Your task to perform on an android device: Open wifi settings Image 0: 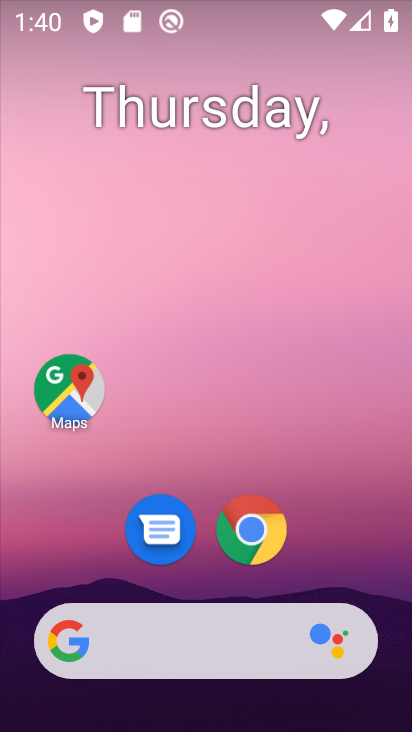
Step 0: drag from (230, 696) to (231, 61)
Your task to perform on an android device: Open wifi settings Image 1: 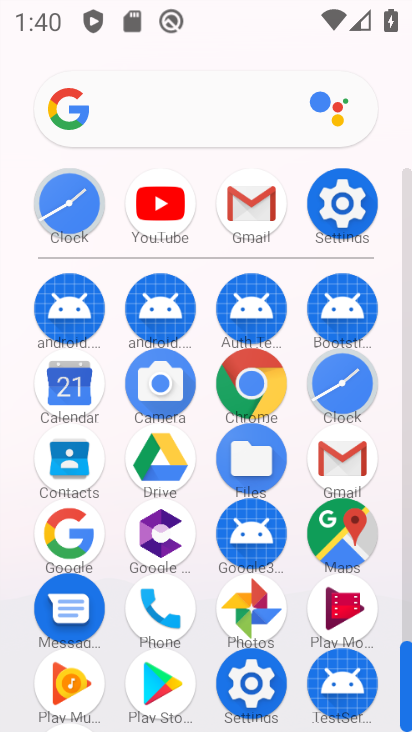
Step 1: click (349, 207)
Your task to perform on an android device: Open wifi settings Image 2: 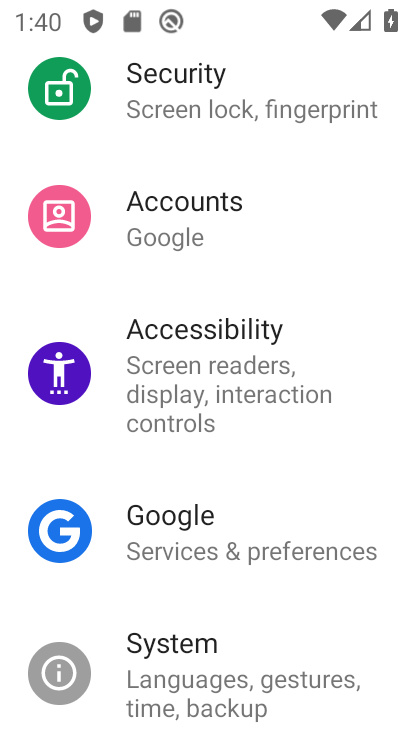
Step 2: drag from (218, 151) to (212, 553)
Your task to perform on an android device: Open wifi settings Image 3: 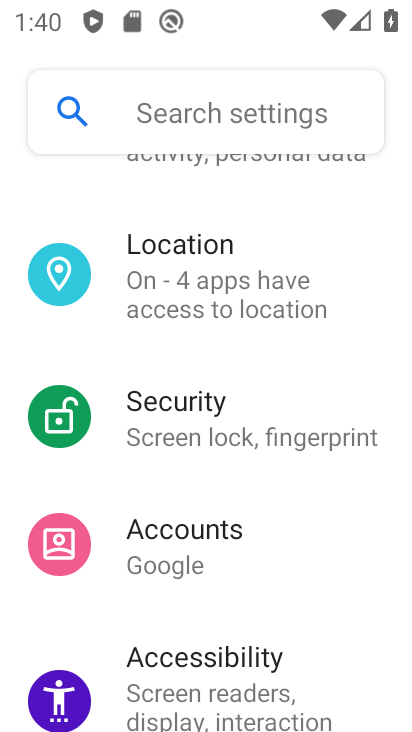
Step 3: drag from (188, 215) to (193, 549)
Your task to perform on an android device: Open wifi settings Image 4: 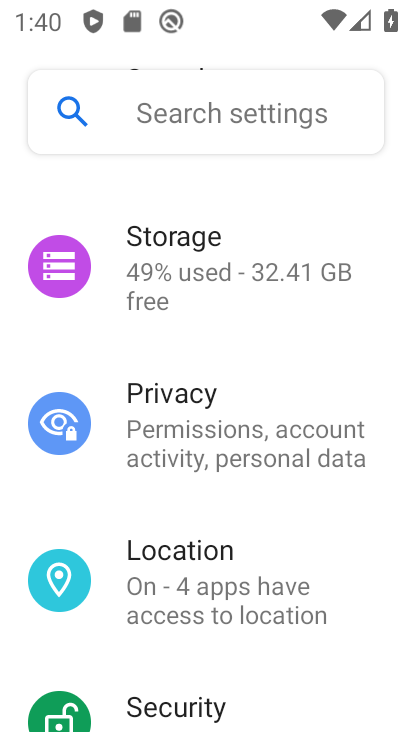
Step 4: drag from (182, 225) to (213, 539)
Your task to perform on an android device: Open wifi settings Image 5: 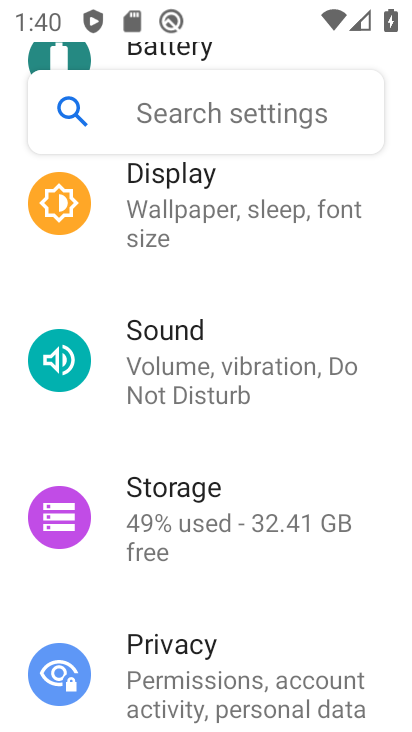
Step 5: drag from (179, 326) to (207, 586)
Your task to perform on an android device: Open wifi settings Image 6: 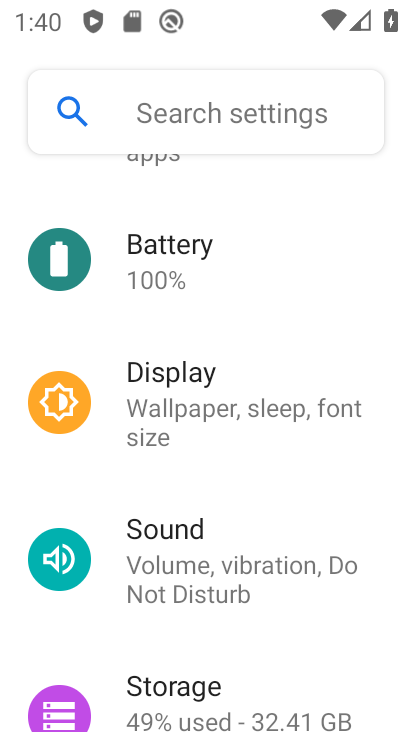
Step 6: drag from (176, 208) to (216, 555)
Your task to perform on an android device: Open wifi settings Image 7: 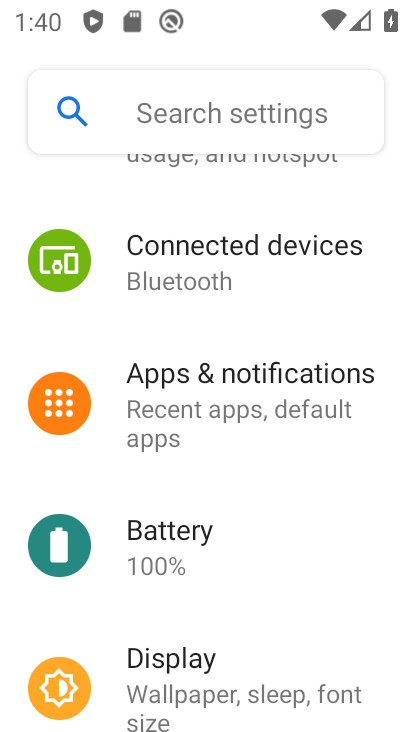
Step 7: drag from (204, 227) to (219, 565)
Your task to perform on an android device: Open wifi settings Image 8: 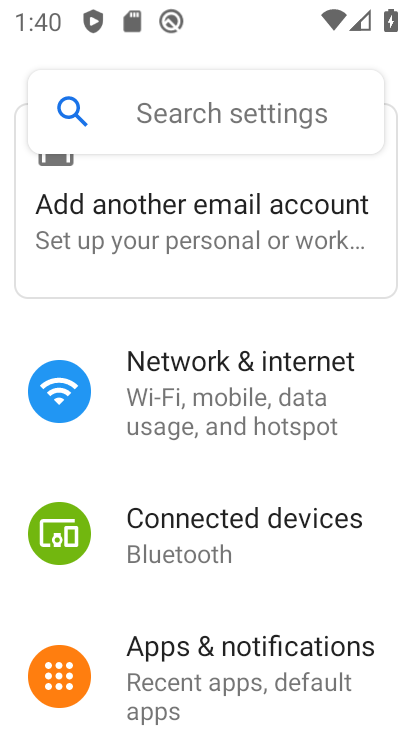
Step 8: click (207, 406)
Your task to perform on an android device: Open wifi settings Image 9: 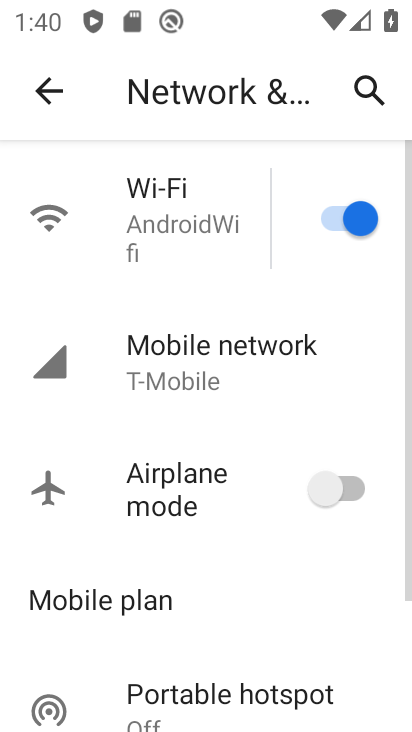
Step 9: click (160, 218)
Your task to perform on an android device: Open wifi settings Image 10: 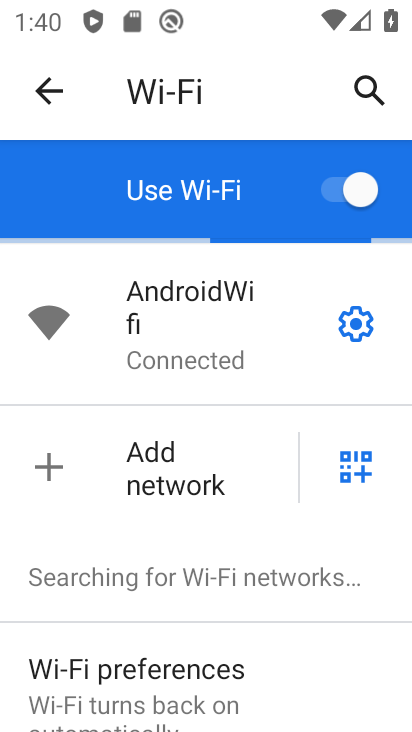
Step 10: click (355, 325)
Your task to perform on an android device: Open wifi settings Image 11: 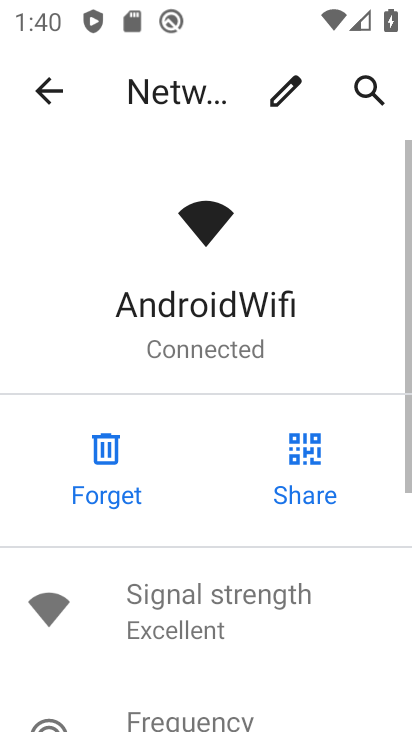
Step 11: task complete